Your task to perform on an android device: Show me productivity apps on the Play Store Image 0: 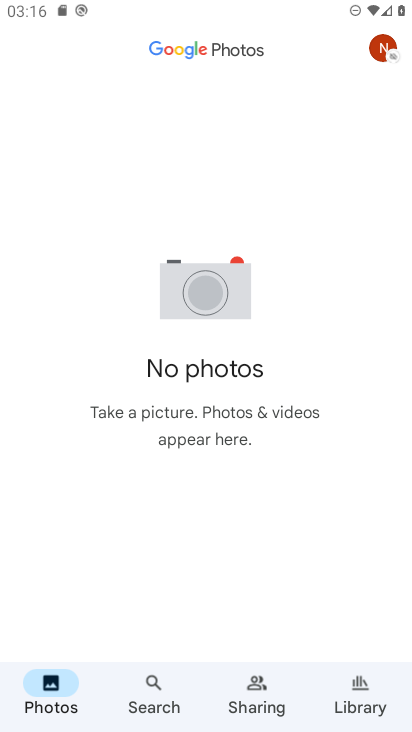
Step 0: press home button
Your task to perform on an android device: Show me productivity apps on the Play Store Image 1: 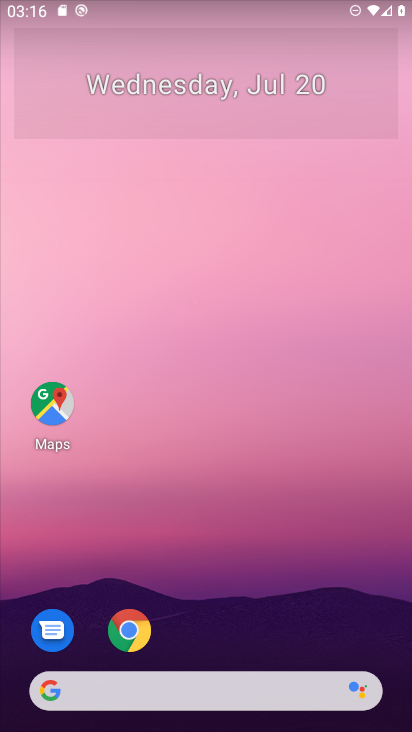
Step 1: drag from (364, 618) to (369, 95)
Your task to perform on an android device: Show me productivity apps on the Play Store Image 2: 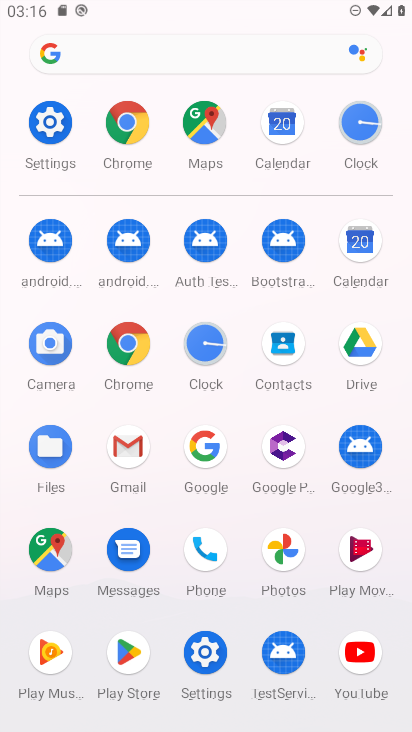
Step 2: click (129, 660)
Your task to perform on an android device: Show me productivity apps on the Play Store Image 3: 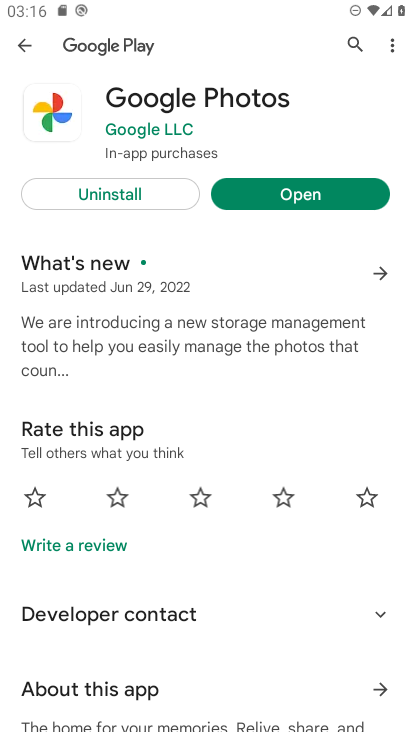
Step 3: press back button
Your task to perform on an android device: Show me productivity apps on the Play Store Image 4: 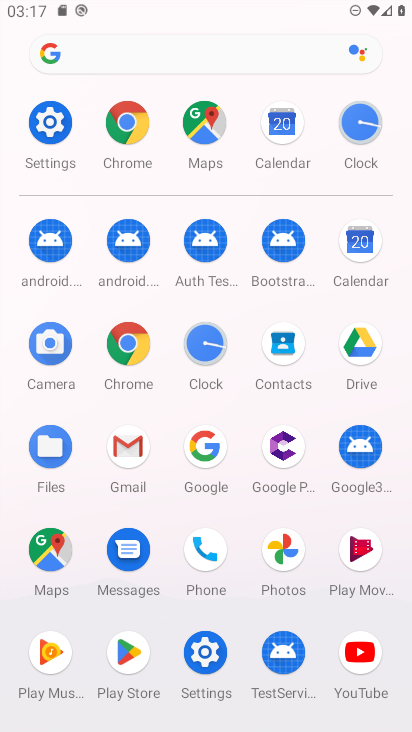
Step 4: click (131, 651)
Your task to perform on an android device: Show me productivity apps on the Play Store Image 5: 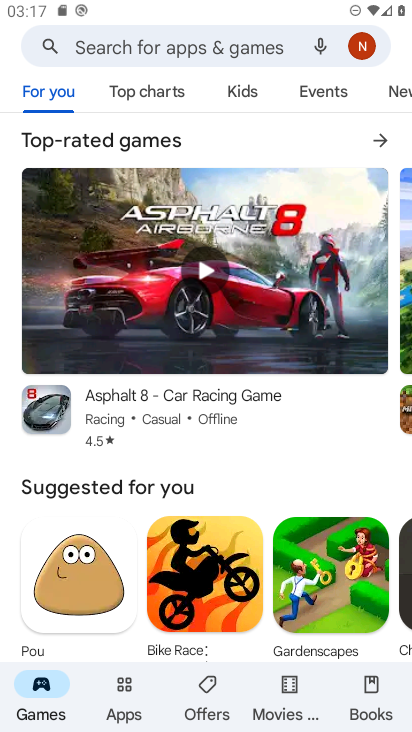
Step 5: click (125, 693)
Your task to perform on an android device: Show me productivity apps on the Play Store Image 6: 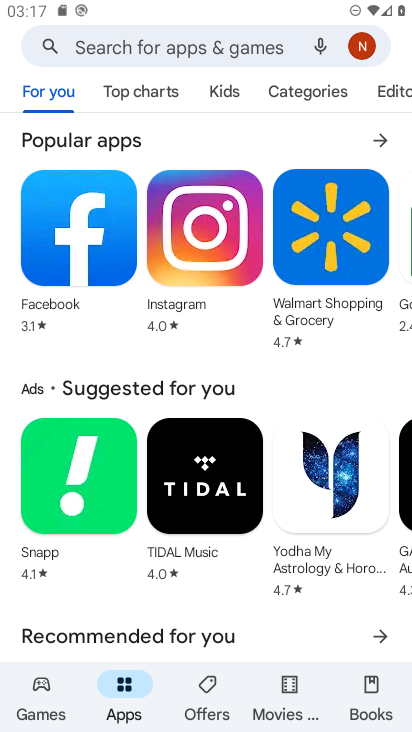
Step 6: task complete